Your task to perform on an android device: set an alarm Image 0: 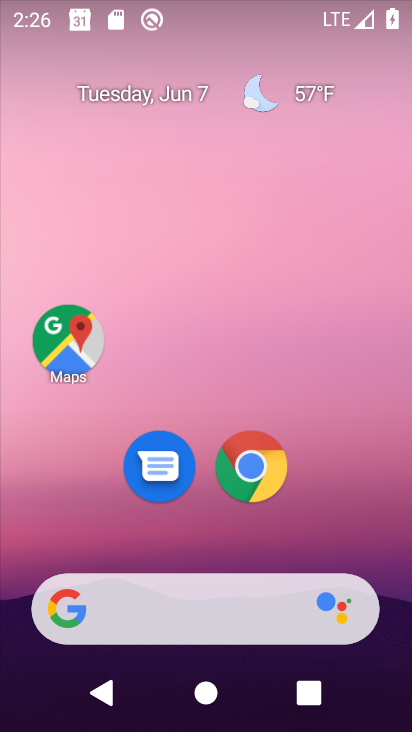
Step 0: drag from (202, 500) to (269, 29)
Your task to perform on an android device: set an alarm Image 1: 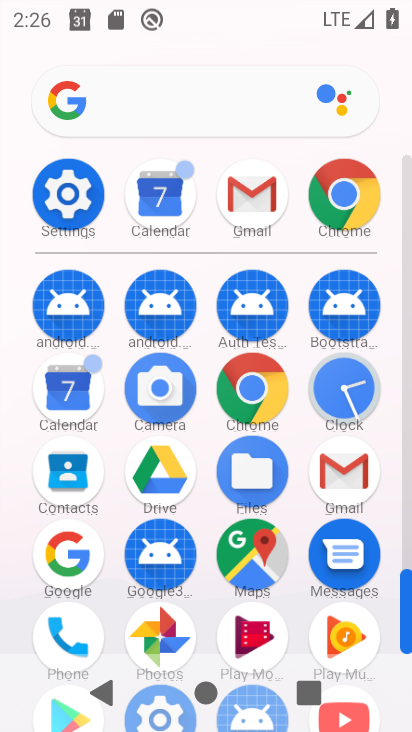
Step 1: click (337, 397)
Your task to perform on an android device: set an alarm Image 2: 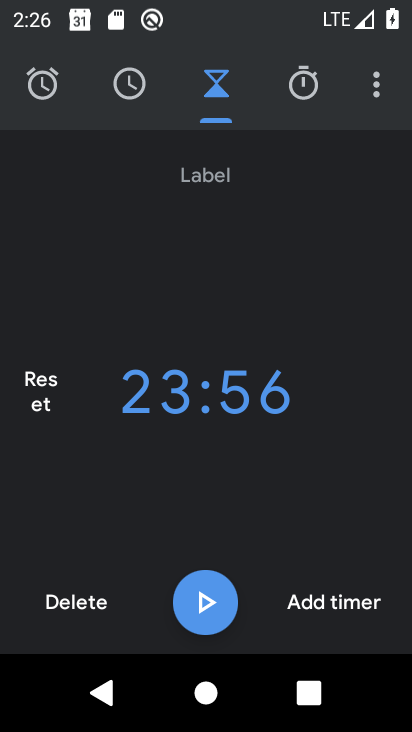
Step 2: click (42, 71)
Your task to perform on an android device: set an alarm Image 3: 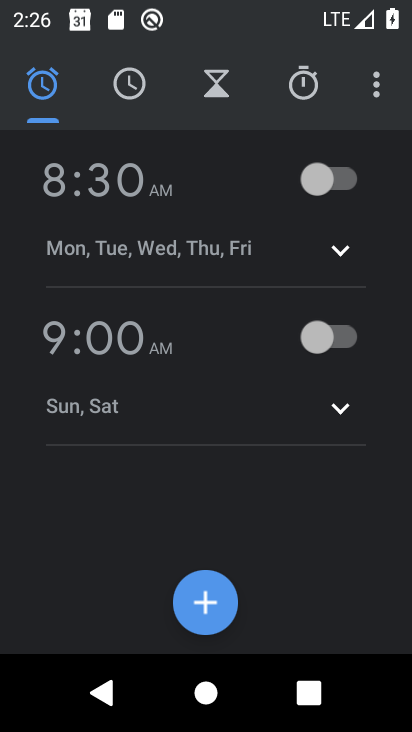
Step 3: task complete